Your task to perform on an android device: add a contact Image 0: 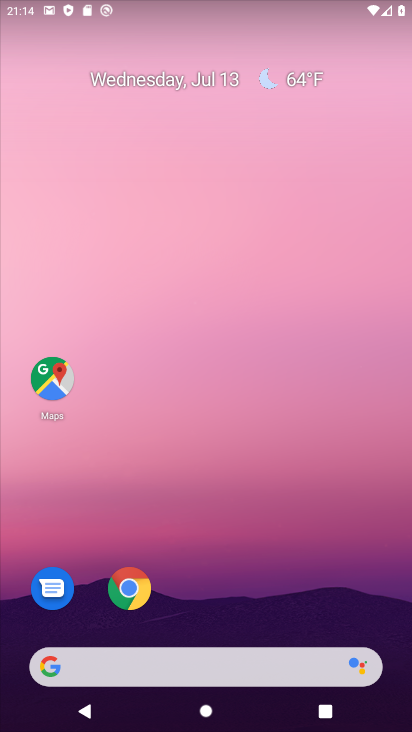
Step 0: drag from (195, 597) to (285, 26)
Your task to perform on an android device: add a contact Image 1: 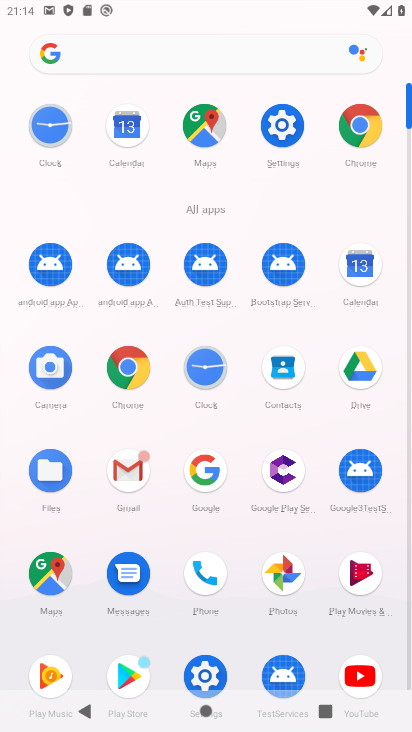
Step 1: click (282, 366)
Your task to perform on an android device: add a contact Image 2: 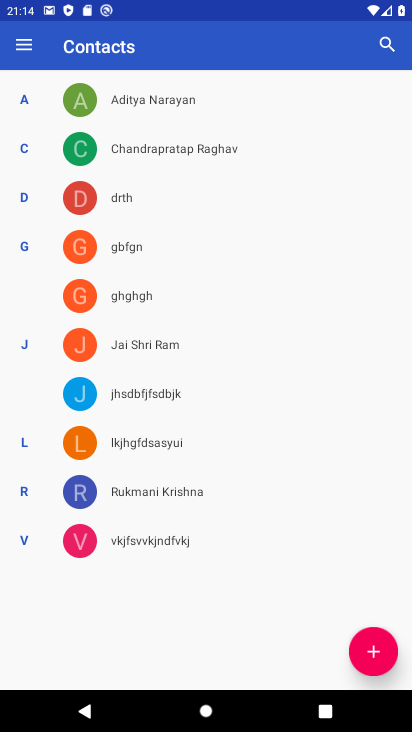
Step 2: click (378, 648)
Your task to perform on an android device: add a contact Image 3: 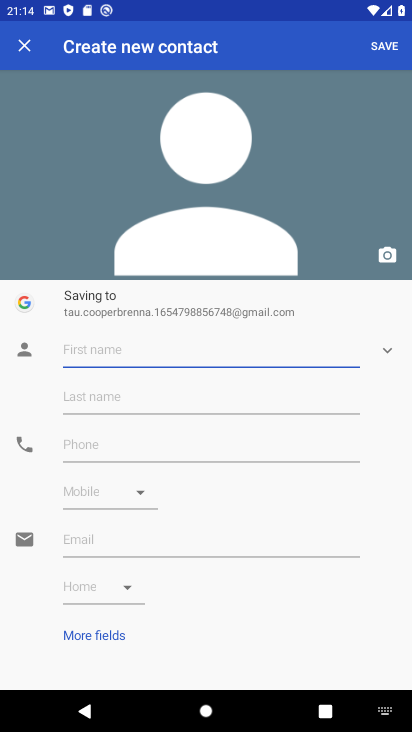
Step 3: click (82, 349)
Your task to perform on an android device: add a contact Image 4: 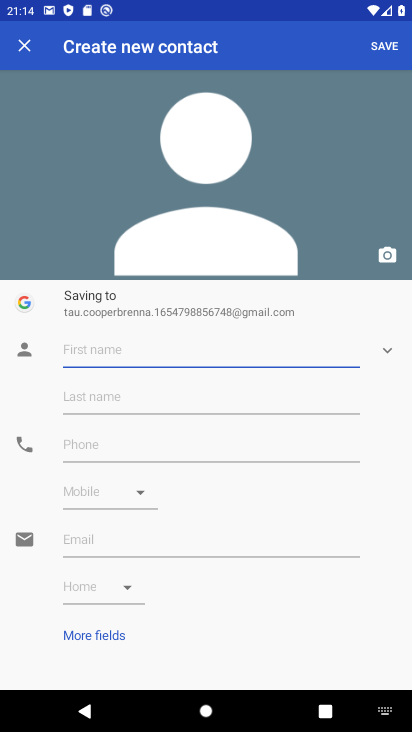
Step 4: type "vgv"
Your task to perform on an android device: add a contact Image 5: 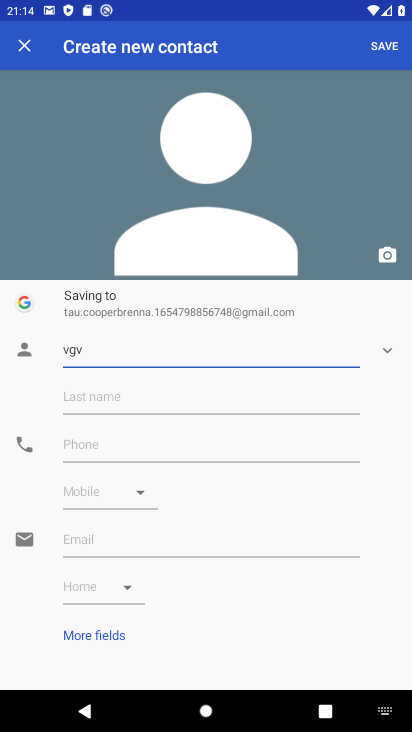
Step 5: click (72, 433)
Your task to perform on an android device: add a contact Image 6: 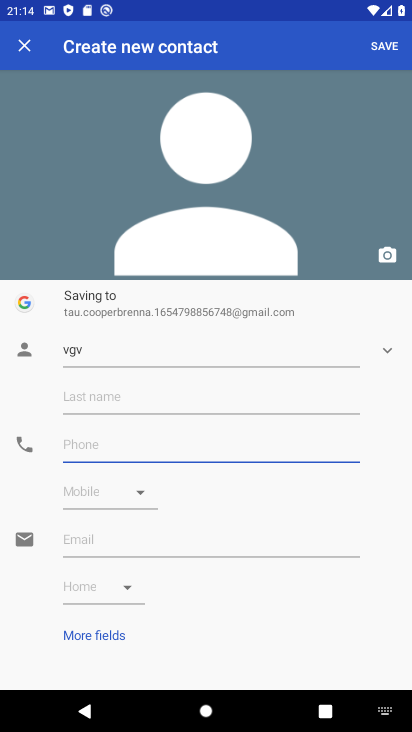
Step 6: type "787897"
Your task to perform on an android device: add a contact Image 7: 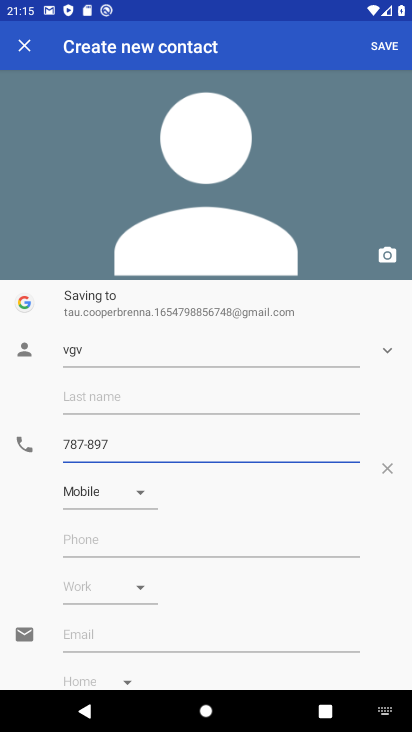
Step 7: click (390, 44)
Your task to perform on an android device: add a contact Image 8: 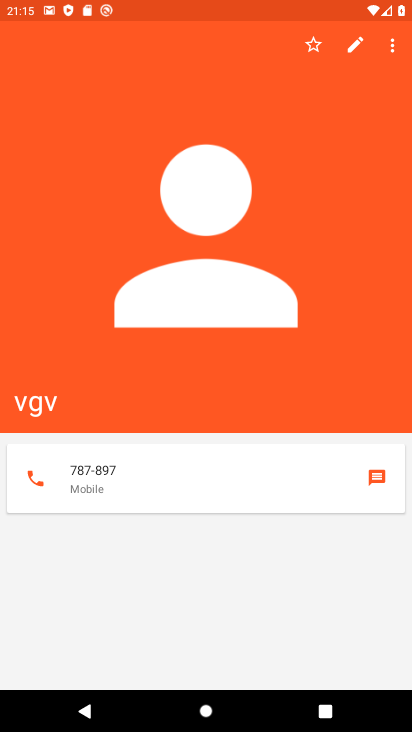
Step 8: task complete